Your task to perform on an android device: Open battery settings Image 0: 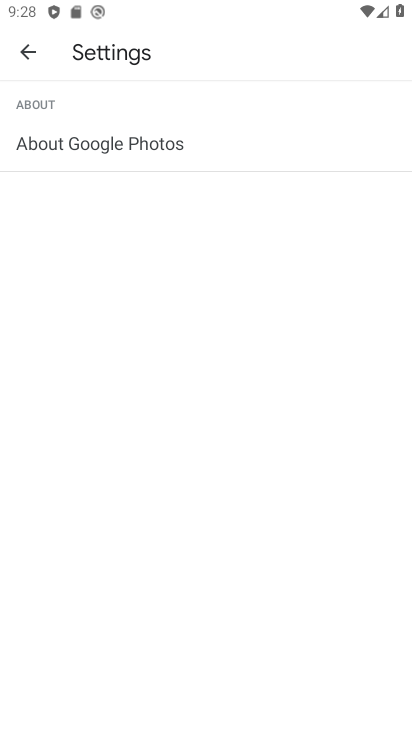
Step 0: press home button
Your task to perform on an android device: Open battery settings Image 1: 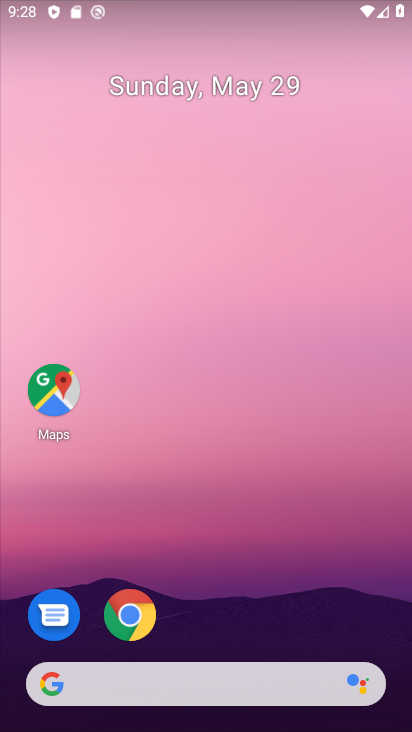
Step 1: drag from (213, 661) to (390, 333)
Your task to perform on an android device: Open battery settings Image 2: 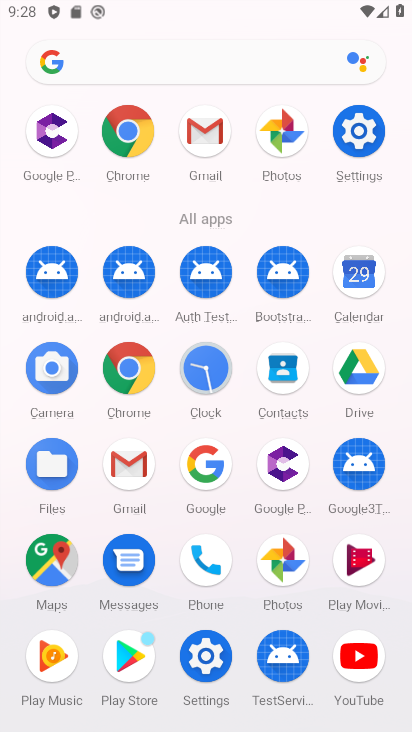
Step 2: click (198, 652)
Your task to perform on an android device: Open battery settings Image 3: 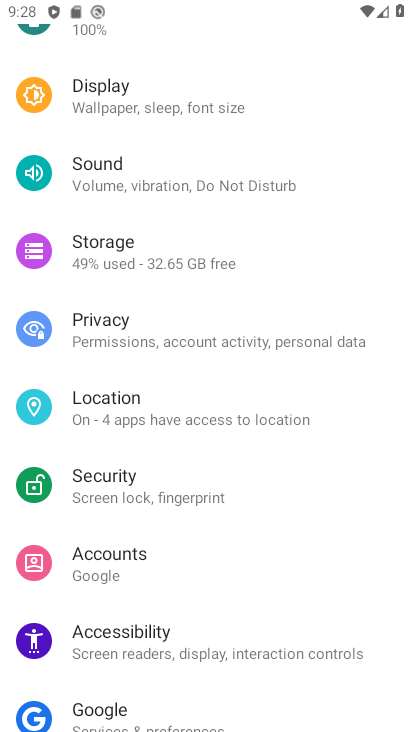
Step 3: drag from (138, 360) to (181, 731)
Your task to perform on an android device: Open battery settings Image 4: 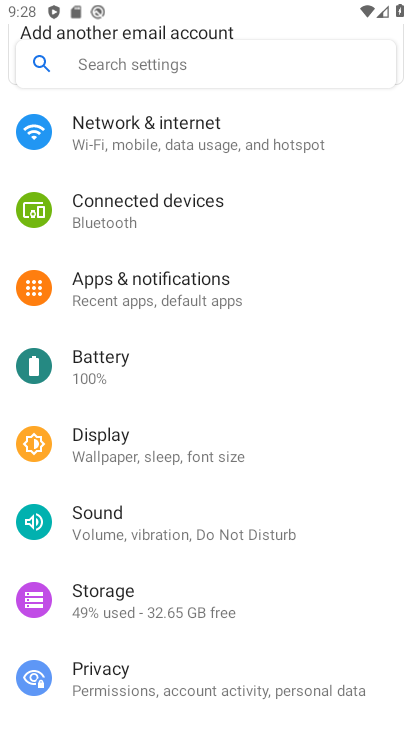
Step 4: click (104, 376)
Your task to perform on an android device: Open battery settings Image 5: 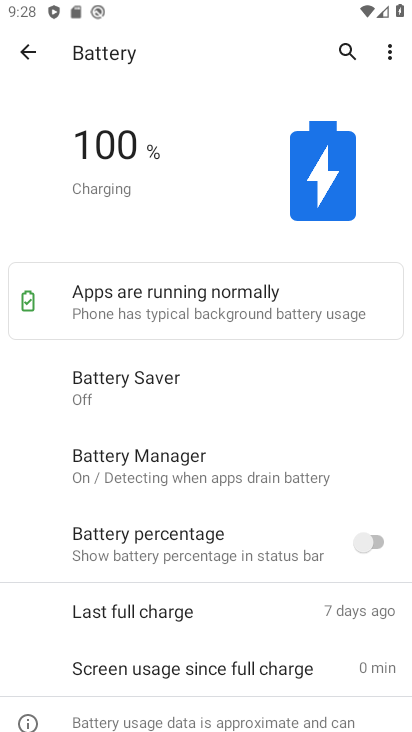
Step 5: task complete